Your task to perform on an android device: Open Google Chrome Image 0: 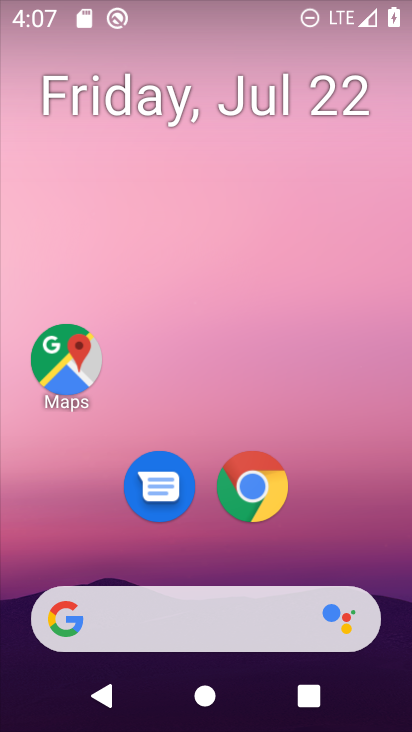
Step 0: click (247, 489)
Your task to perform on an android device: Open Google Chrome Image 1: 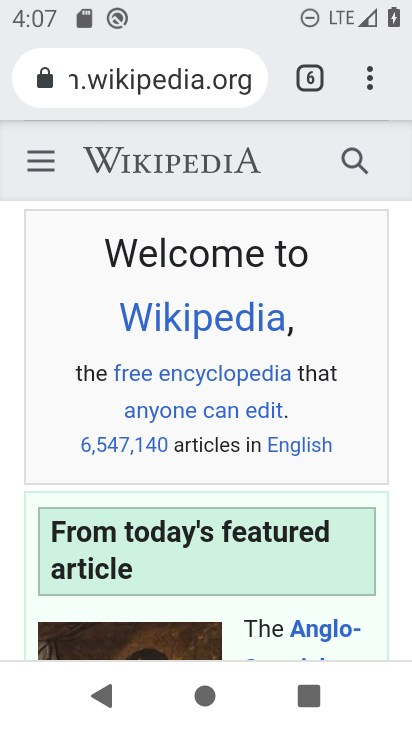
Step 1: task complete